Your task to perform on an android device: turn off javascript in the chrome app Image 0: 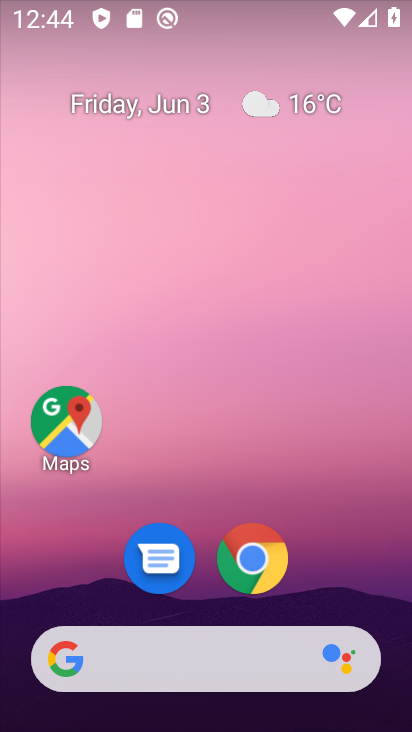
Step 0: drag from (354, 587) to (346, 222)
Your task to perform on an android device: turn off javascript in the chrome app Image 1: 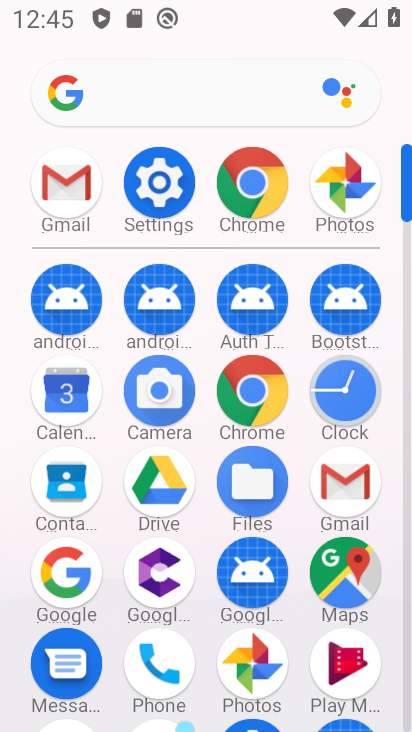
Step 1: click (243, 395)
Your task to perform on an android device: turn off javascript in the chrome app Image 2: 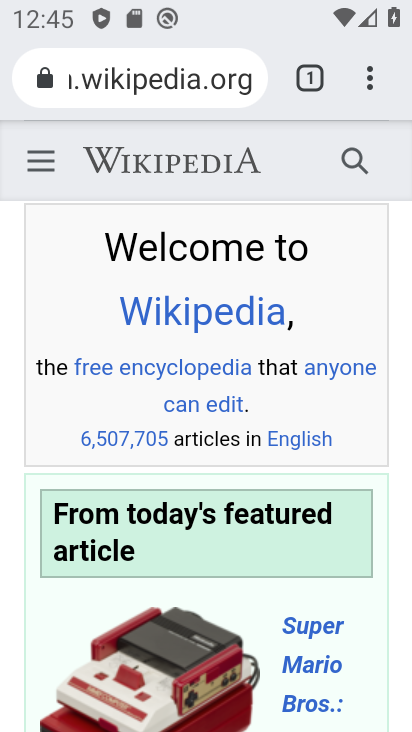
Step 2: click (367, 89)
Your task to perform on an android device: turn off javascript in the chrome app Image 3: 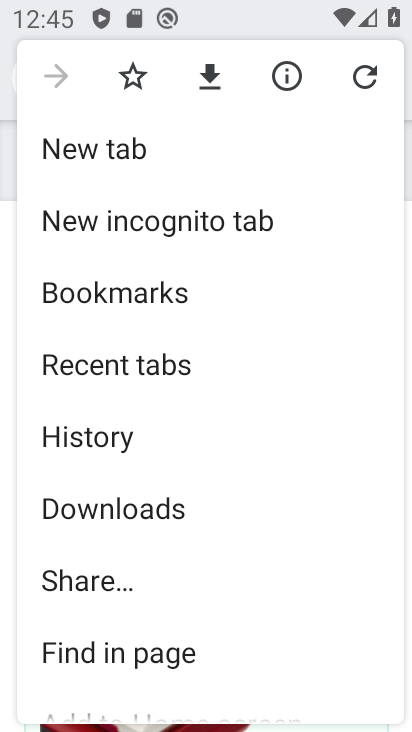
Step 3: drag from (300, 562) to (297, 403)
Your task to perform on an android device: turn off javascript in the chrome app Image 4: 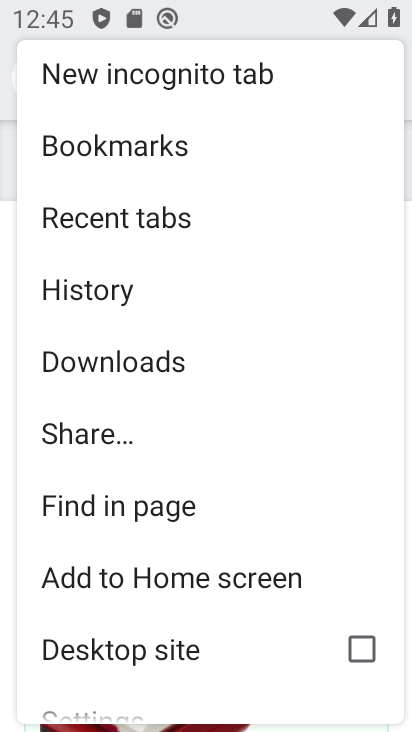
Step 4: drag from (288, 502) to (290, 390)
Your task to perform on an android device: turn off javascript in the chrome app Image 5: 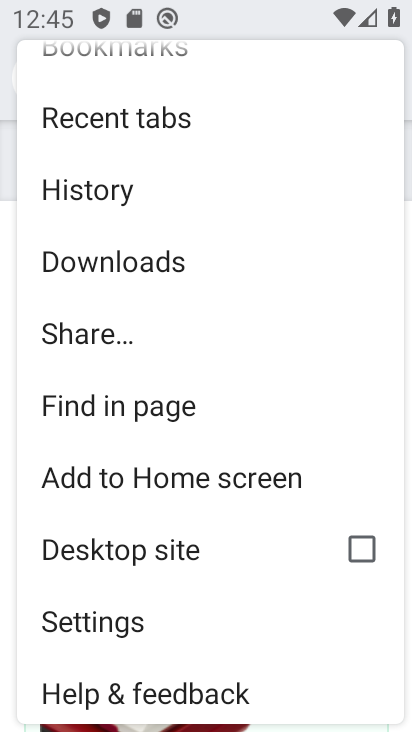
Step 5: drag from (287, 497) to (286, 387)
Your task to perform on an android device: turn off javascript in the chrome app Image 6: 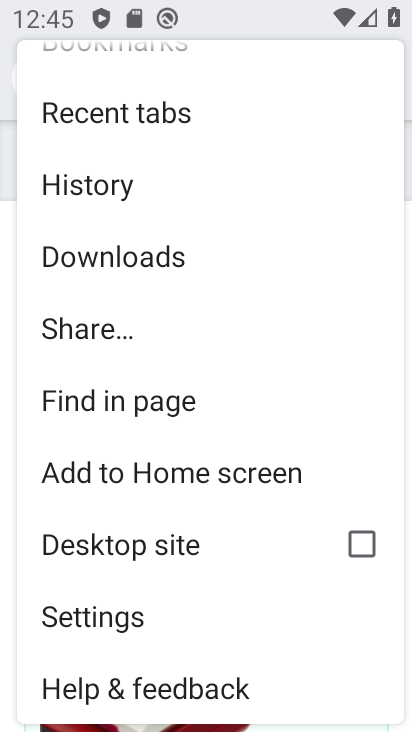
Step 6: click (161, 620)
Your task to perform on an android device: turn off javascript in the chrome app Image 7: 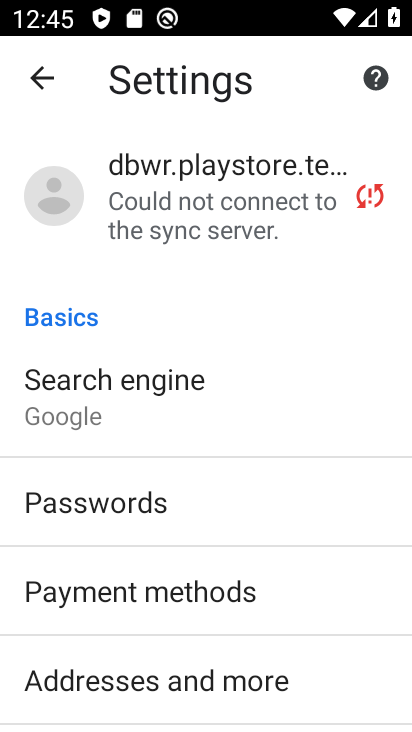
Step 7: drag from (302, 612) to (296, 355)
Your task to perform on an android device: turn off javascript in the chrome app Image 8: 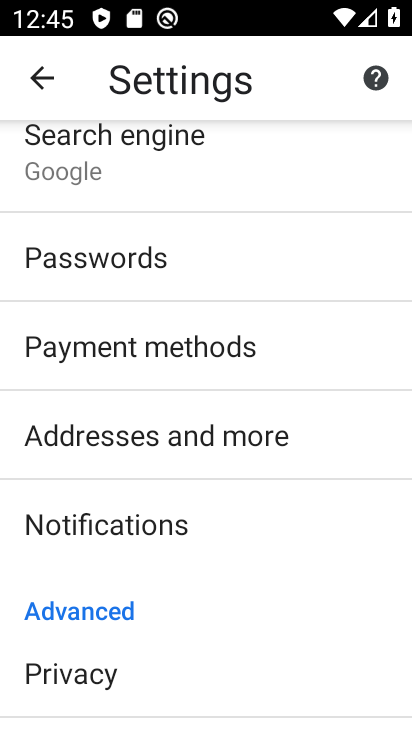
Step 8: drag from (298, 575) to (308, 372)
Your task to perform on an android device: turn off javascript in the chrome app Image 9: 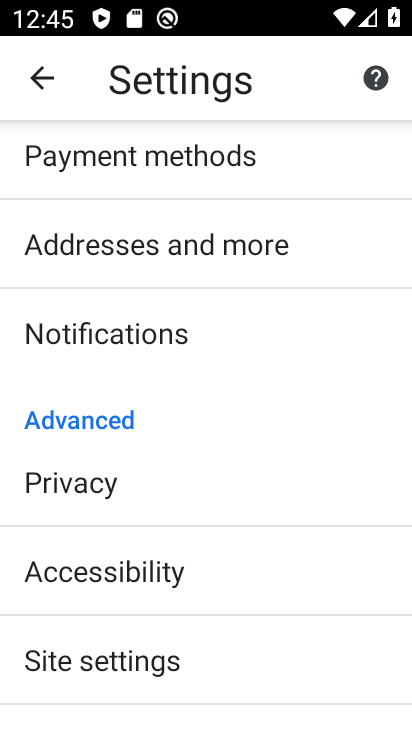
Step 9: drag from (301, 570) to (302, 283)
Your task to perform on an android device: turn off javascript in the chrome app Image 10: 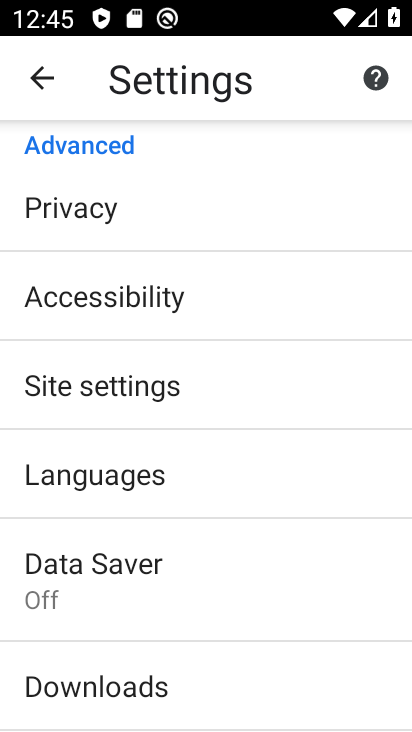
Step 10: click (224, 403)
Your task to perform on an android device: turn off javascript in the chrome app Image 11: 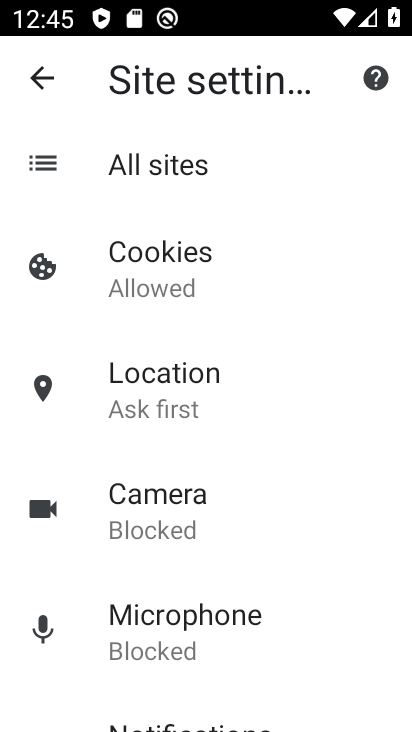
Step 11: drag from (297, 512) to (300, 291)
Your task to perform on an android device: turn off javascript in the chrome app Image 12: 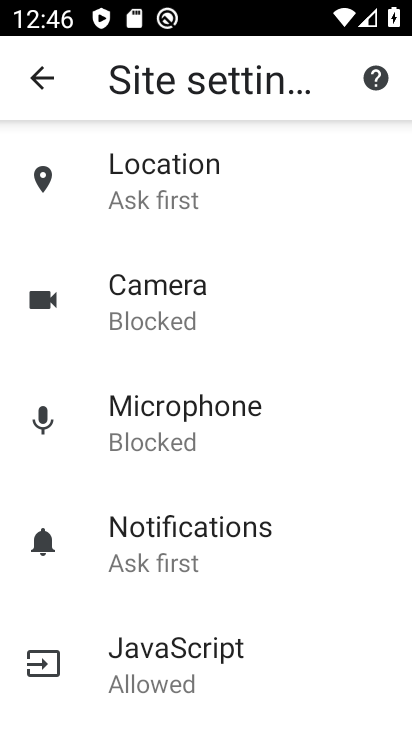
Step 12: drag from (305, 529) to (319, 336)
Your task to perform on an android device: turn off javascript in the chrome app Image 13: 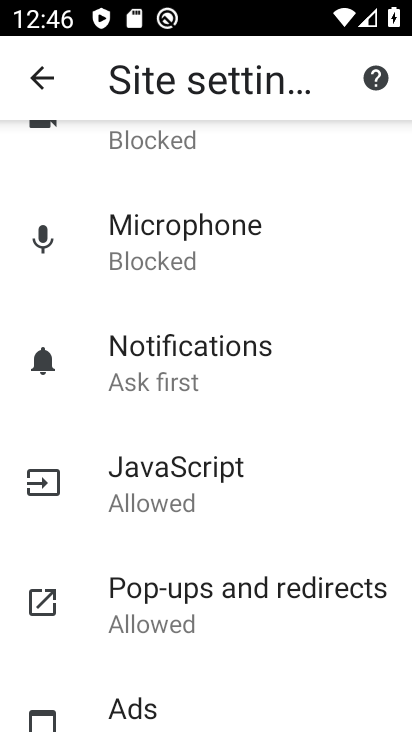
Step 13: click (193, 505)
Your task to perform on an android device: turn off javascript in the chrome app Image 14: 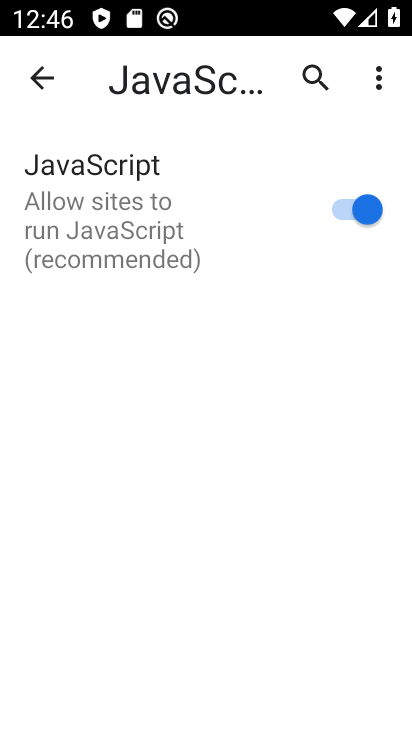
Step 14: click (359, 220)
Your task to perform on an android device: turn off javascript in the chrome app Image 15: 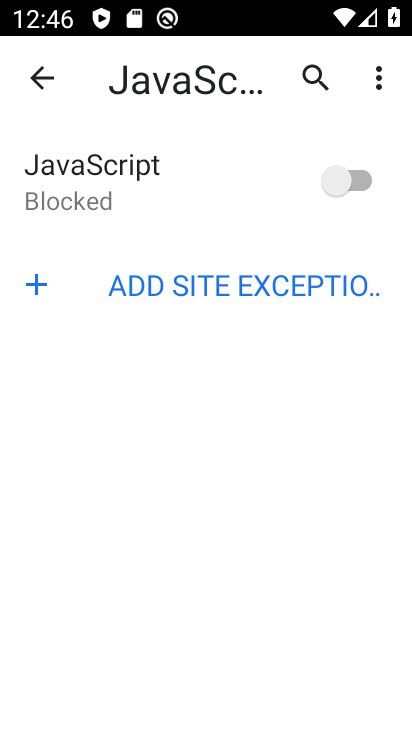
Step 15: task complete